Your task to perform on an android device: turn on the 24-hour format for clock Image 0: 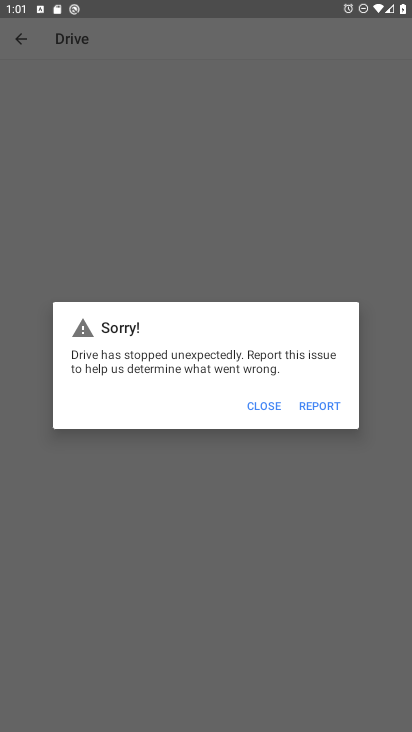
Step 0: press home button
Your task to perform on an android device: turn on the 24-hour format for clock Image 1: 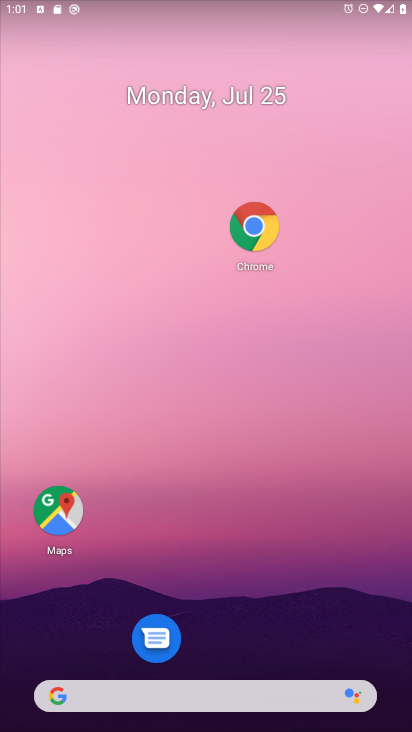
Step 1: drag from (315, 238) to (343, 127)
Your task to perform on an android device: turn on the 24-hour format for clock Image 2: 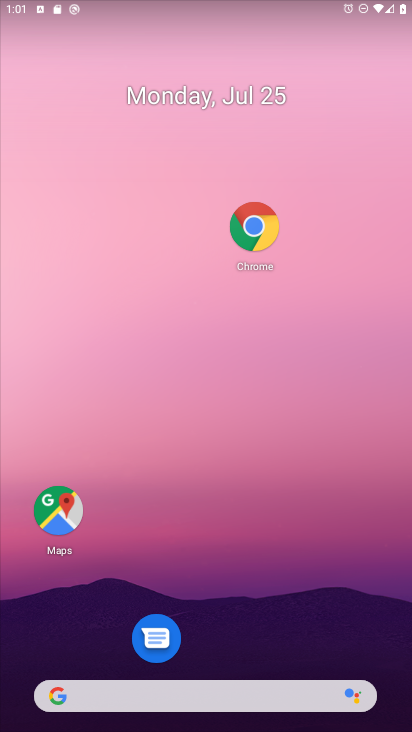
Step 2: drag from (169, 333) to (176, 112)
Your task to perform on an android device: turn on the 24-hour format for clock Image 3: 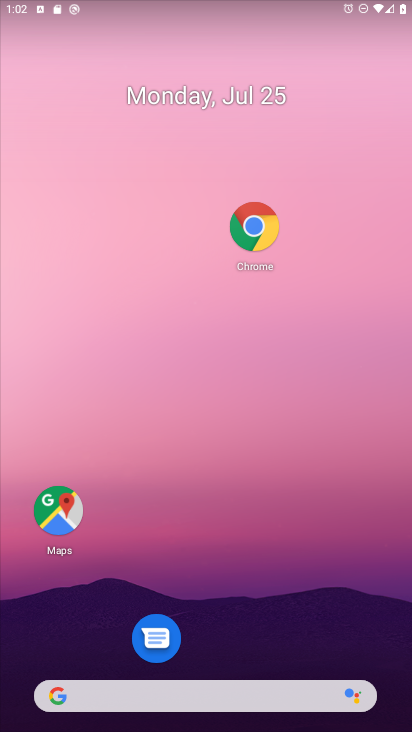
Step 3: drag from (222, 642) to (266, 71)
Your task to perform on an android device: turn on the 24-hour format for clock Image 4: 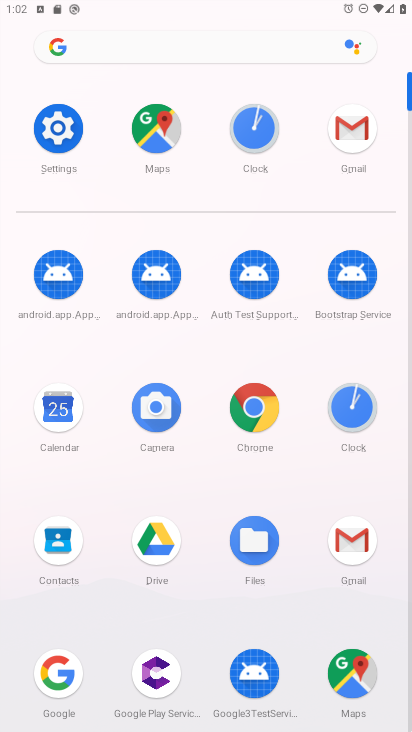
Step 4: click (232, 128)
Your task to perform on an android device: turn on the 24-hour format for clock Image 5: 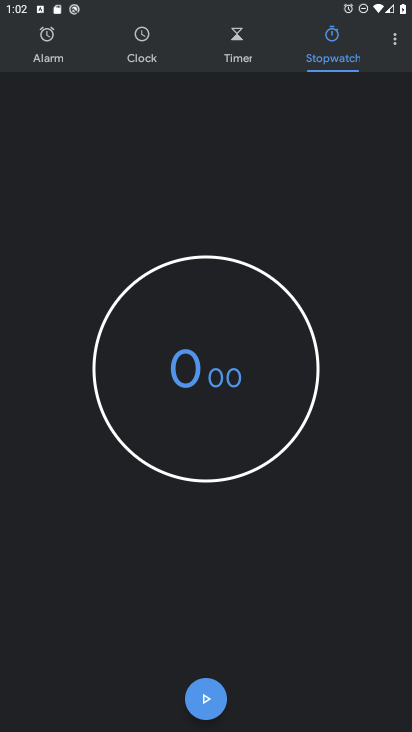
Step 5: click (406, 54)
Your task to perform on an android device: turn on the 24-hour format for clock Image 6: 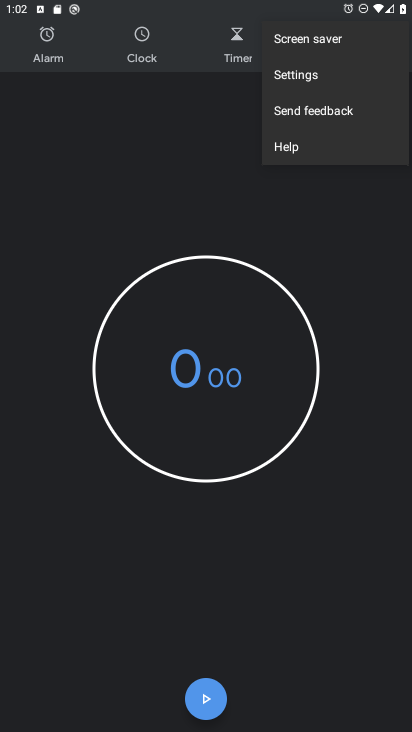
Step 6: click (331, 73)
Your task to perform on an android device: turn on the 24-hour format for clock Image 7: 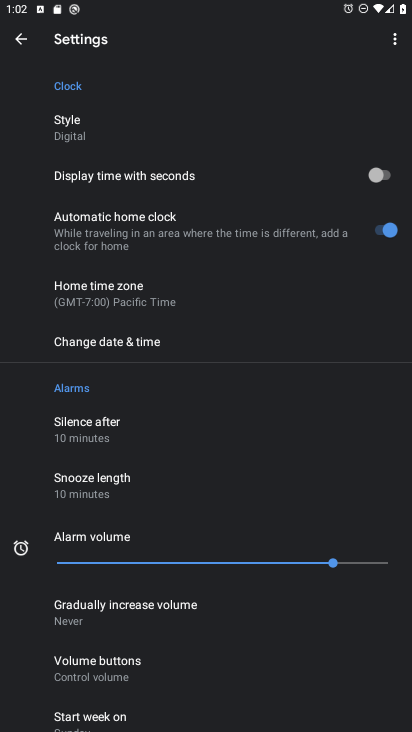
Step 7: click (177, 351)
Your task to perform on an android device: turn on the 24-hour format for clock Image 8: 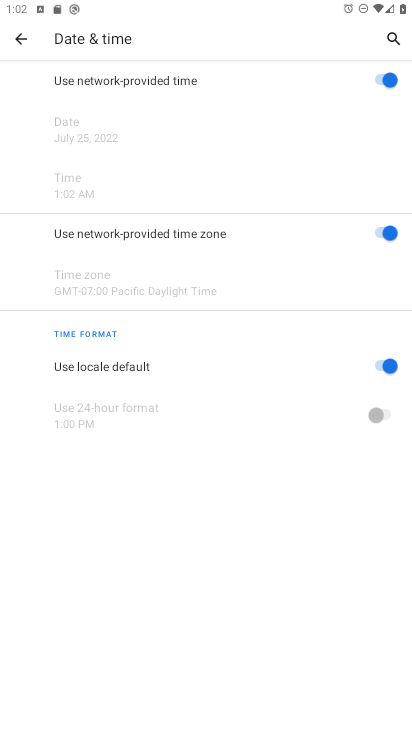
Step 8: click (388, 367)
Your task to perform on an android device: turn on the 24-hour format for clock Image 9: 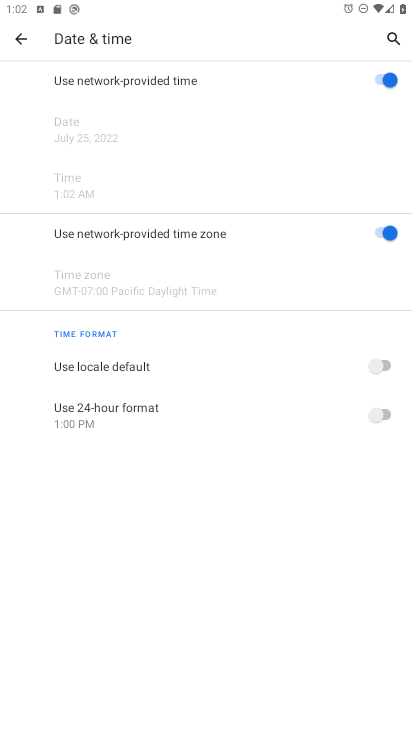
Step 9: click (382, 416)
Your task to perform on an android device: turn on the 24-hour format for clock Image 10: 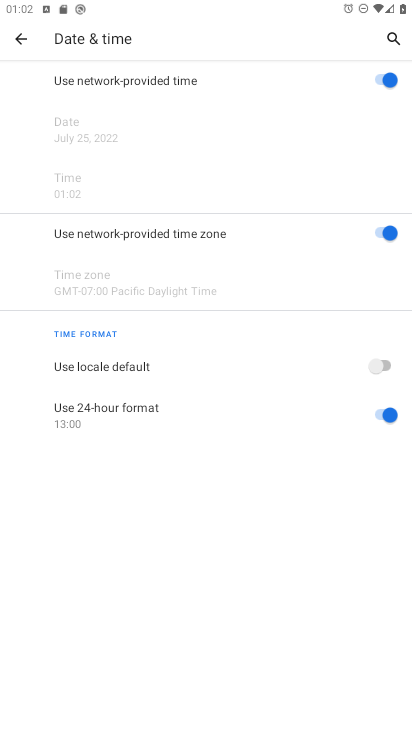
Step 10: task complete